Your task to perform on an android device: turn on airplane mode Image 0: 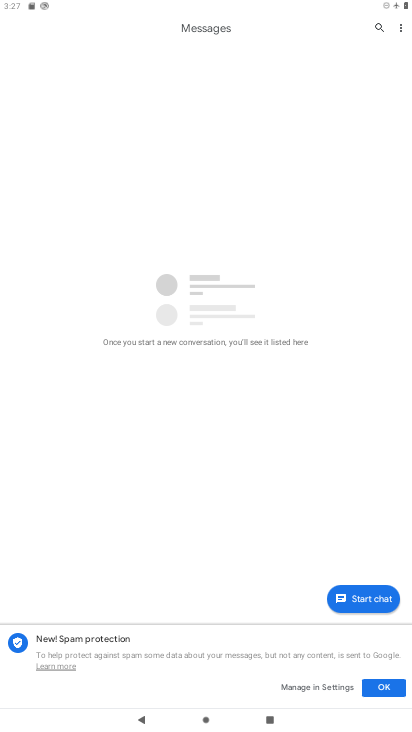
Step 0: press home button
Your task to perform on an android device: turn on airplane mode Image 1: 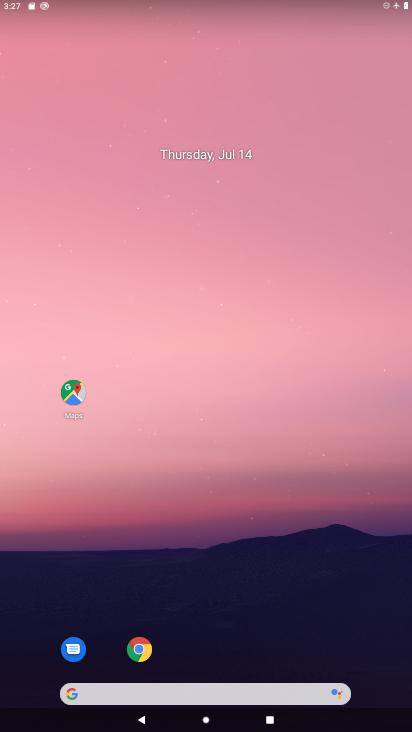
Step 1: drag from (233, 648) to (317, 259)
Your task to perform on an android device: turn on airplane mode Image 2: 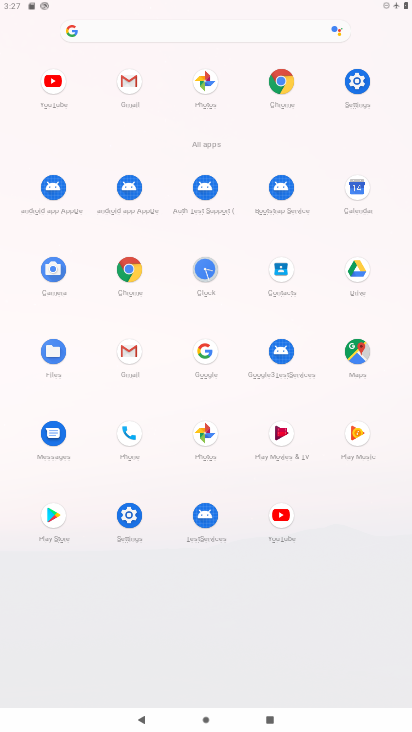
Step 2: click (347, 77)
Your task to perform on an android device: turn on airplane mode Image 3: 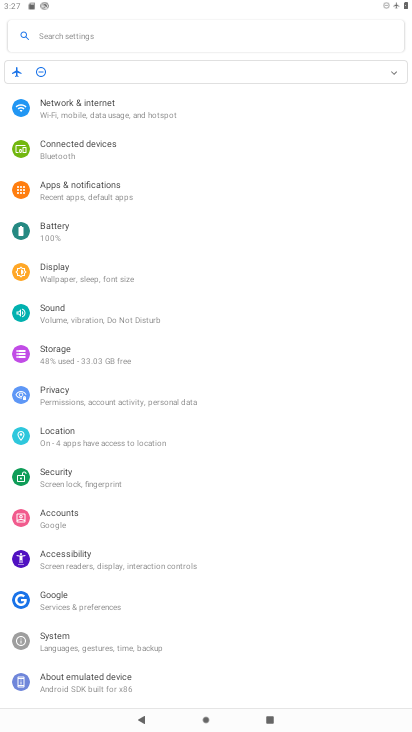
Step 3: click (110, 117)
Your task to perform on an android device: turn on airplane mode Image 4: 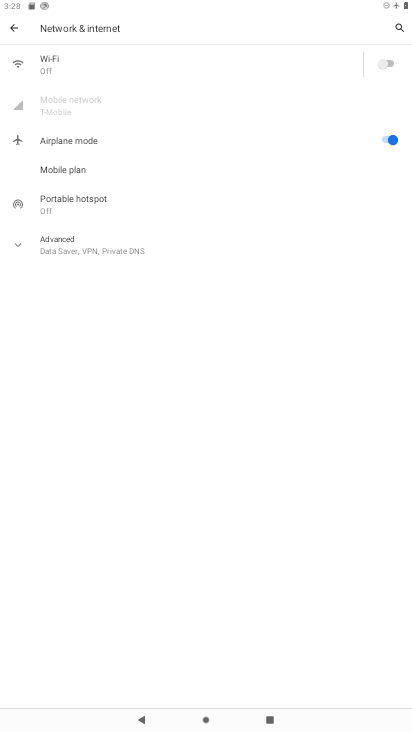
Step 4: task complete